Your task to perform on an android device: Do I have any events today? Image 0: 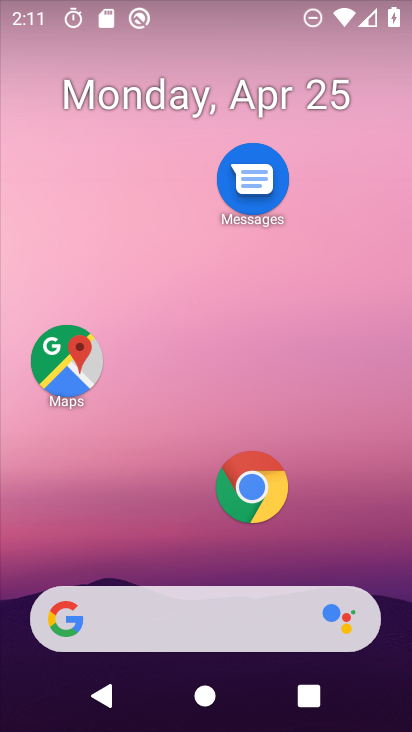
Step 0: drag from (216, 569) to (236, 69)
Your task to perform on an android device: Do I have any events today? Image 1: 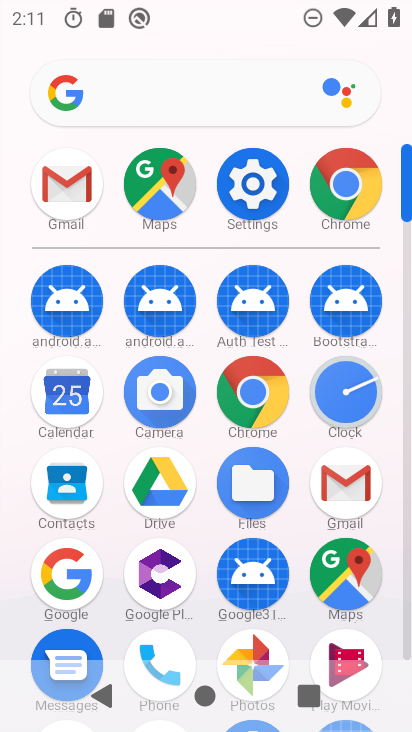
Step 1: click (87, 402)
Your task to perform on an android device: Do I have any events today? Image 2: 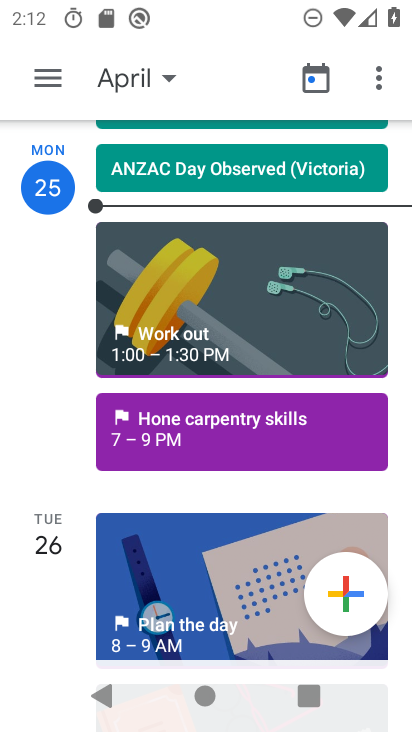
Step 2: click (169, 78)
Your task to perform on an android device: Do I have any events today? Image 3: 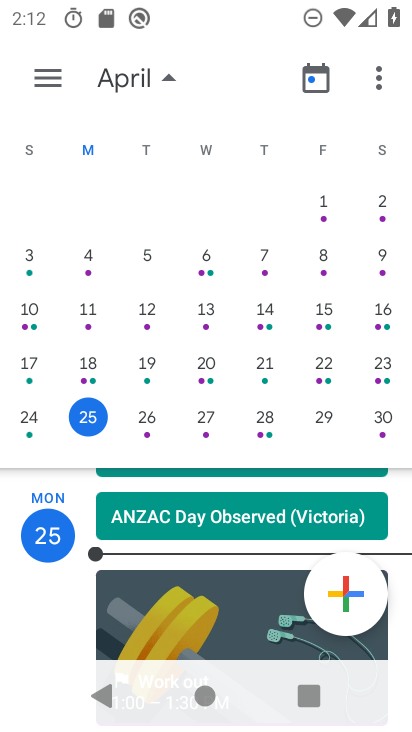
Step 3: click (83, 424)
Your task to perform on an android device: Do I have any events today? Image 4: 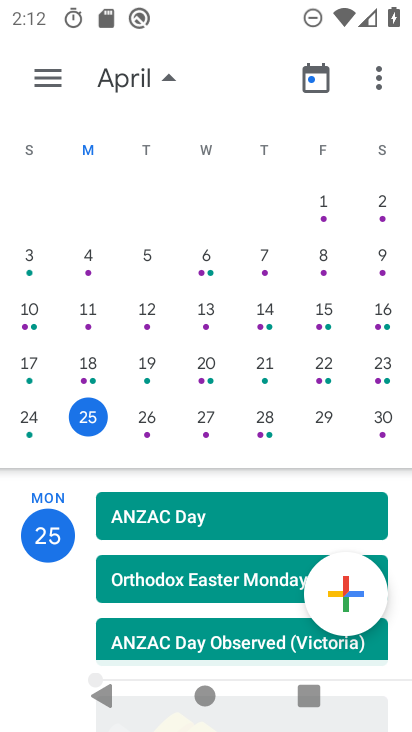
Step 4: task complete